Your task to perform on an android device: add a contact Image 0: 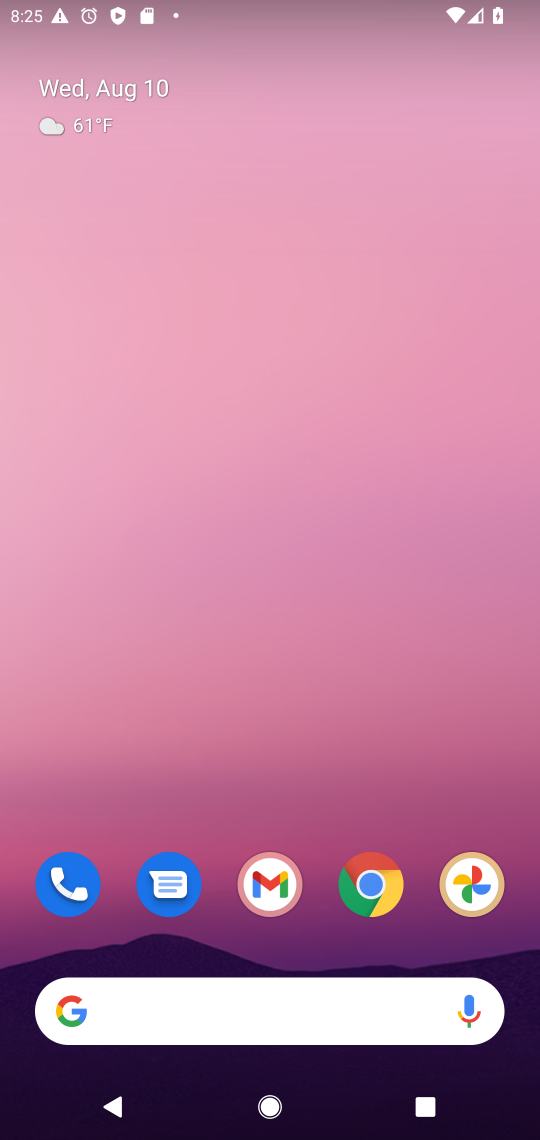
Step 0: click (66, 907)
Your task to perform on an android device: add a contact Image 1: 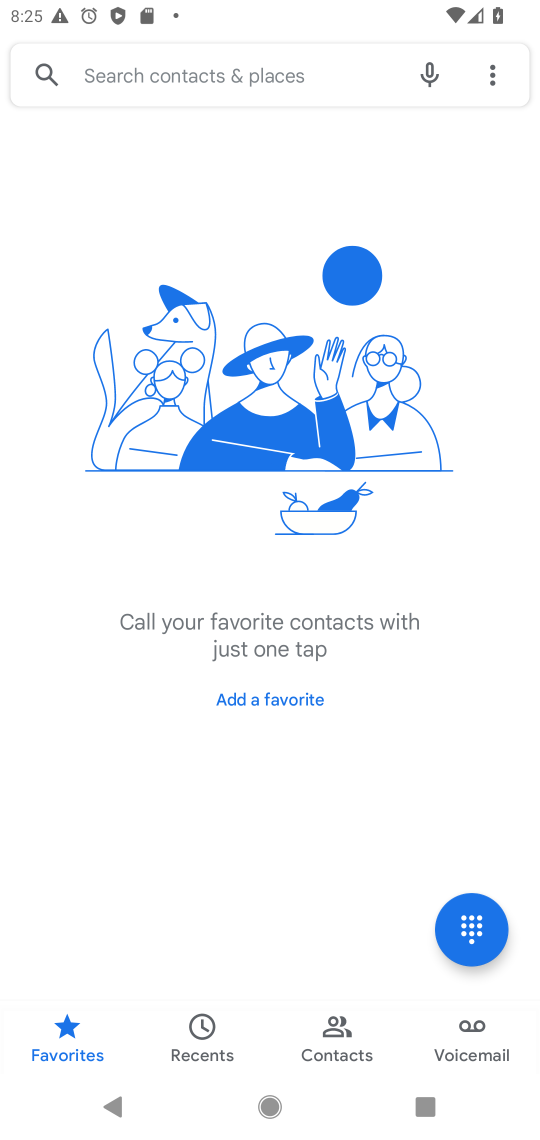
Step 1: click (340, 1044)
Your task to perform on an android device: add a contact Image 2: 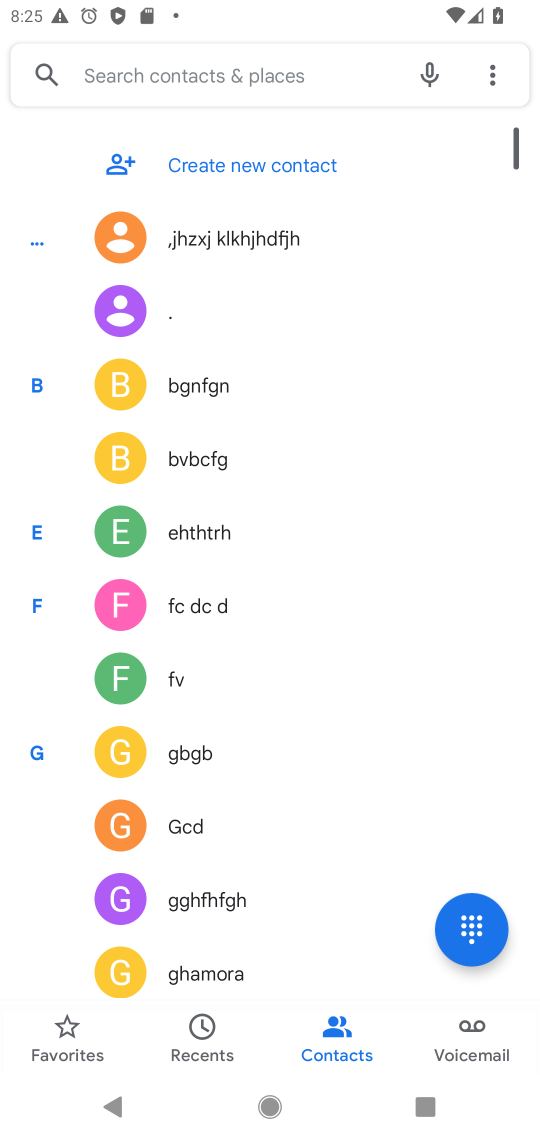
Step 2: click (240, 154)
Your task to perform on an android device: add a contact Image 3: 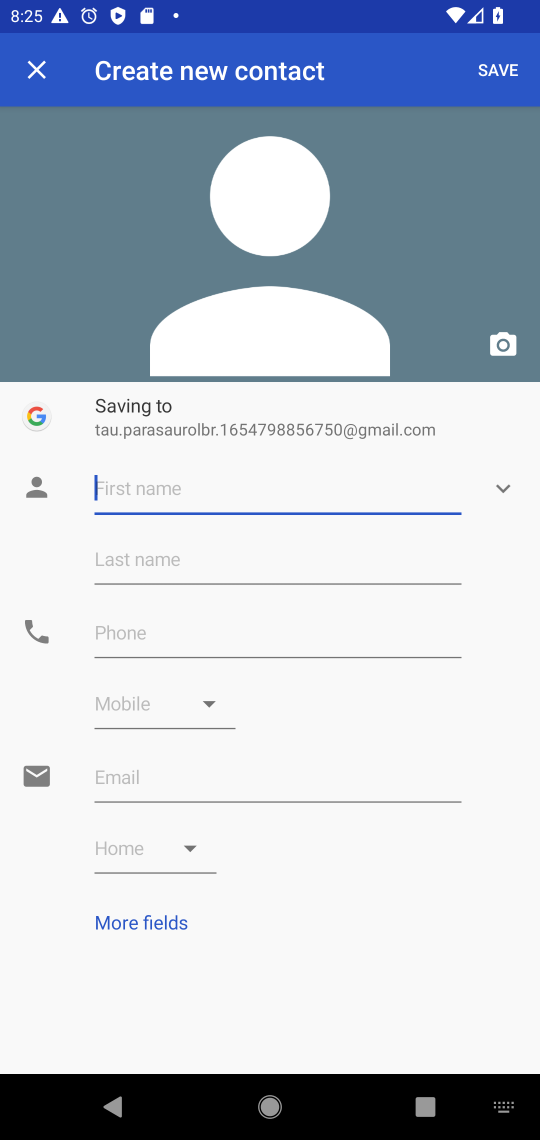
Step 3: type "dfhtng"
Your task to perform on an android device: add a contact Image 4: 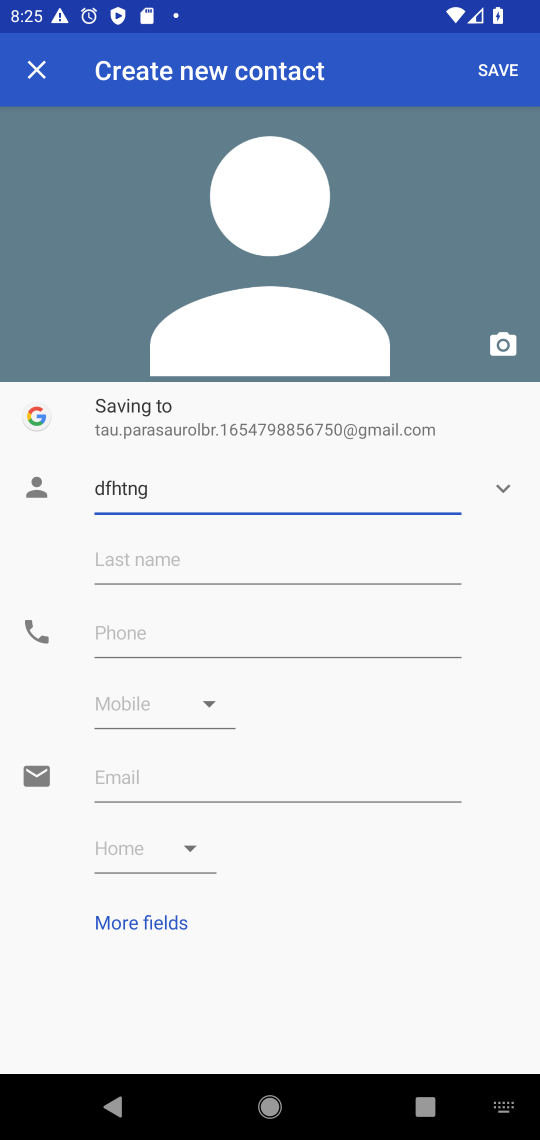
Step 4: click (482, 70)
Your task to perform on an android device: add a contact Image 5: 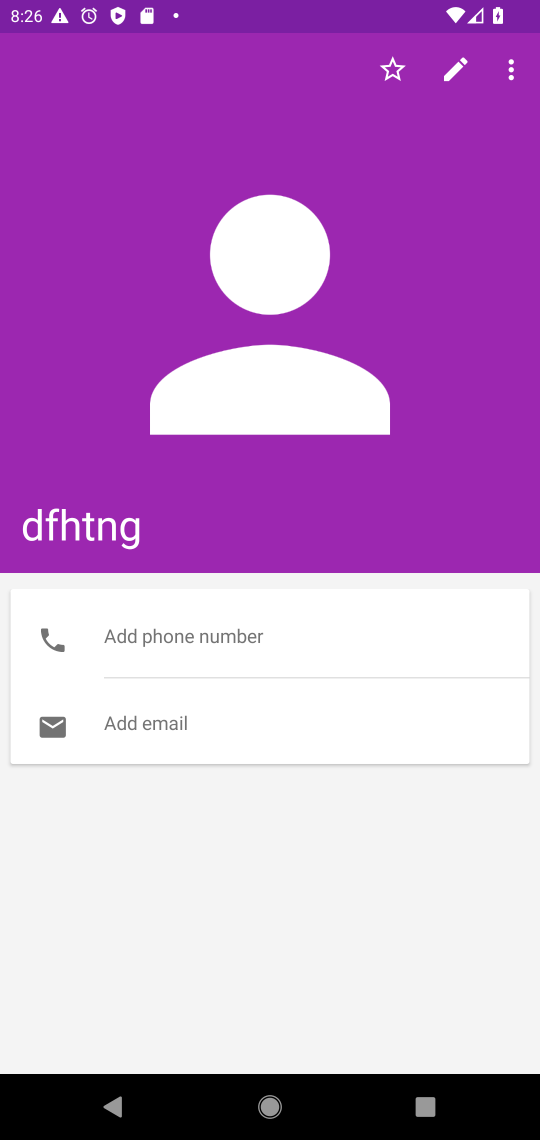
Step 5: task complete